Your task to perform on an android device: Go to accessibility settings Image 0: 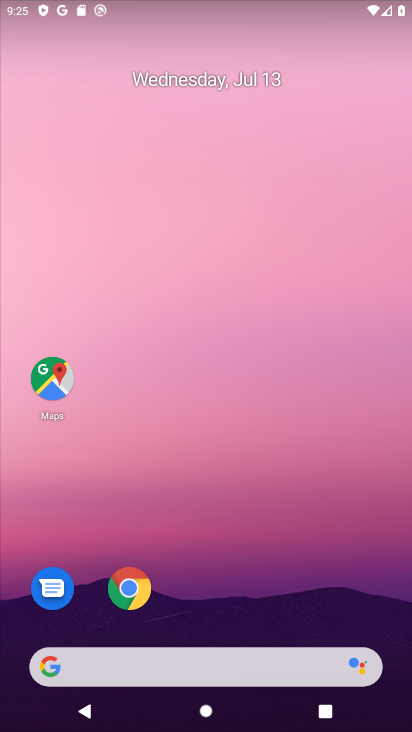
Step 0: drag from (236, 590) to (330, 71)
Your task to perform on an android device: Go to accessibility settings Image 1: 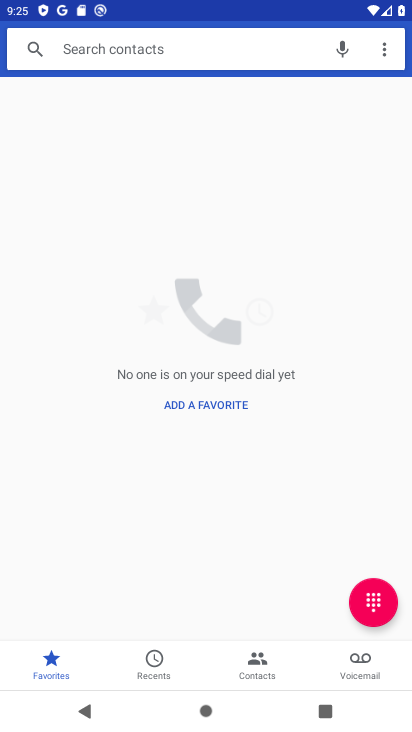
Step 1: press home button
Your task to perform on an android device: Go to accessibility settings Image 2: 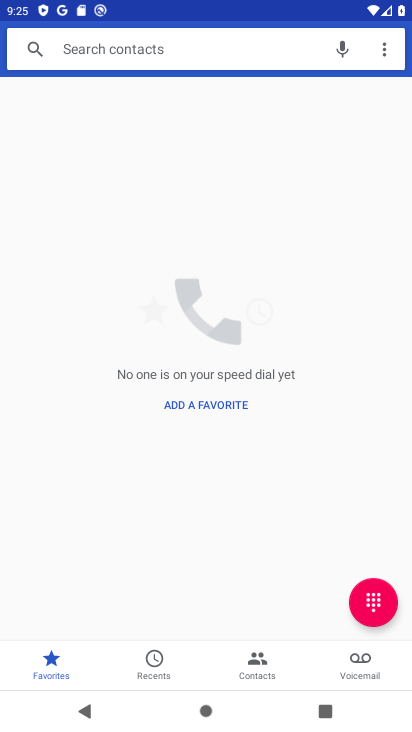
Step 2: drag from (330, 71) to (411, 526)
Your task to perform on an android device: Go to accessibility settings Image 3: 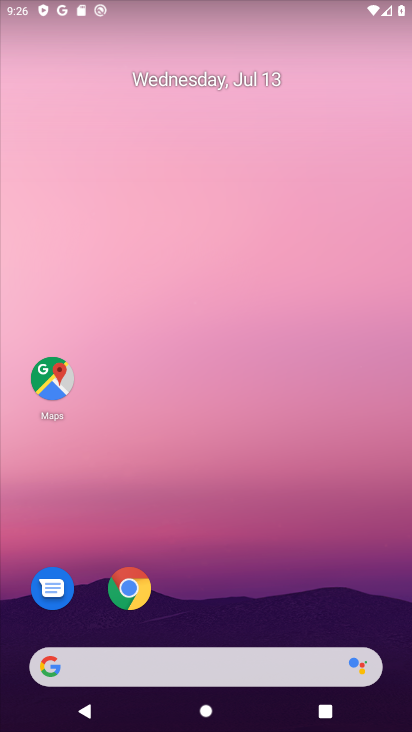
Step 3: drag from (253, 603) to (268, 15)
Your task to perform on an android device: Go to accessibility settings Image 4: 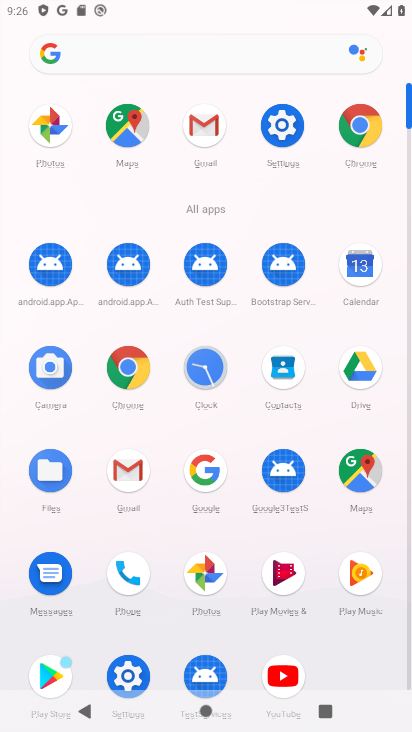
Step 4: click (131, 677)
Your task to perform on an android device: Go to accessibility settings Image 5: 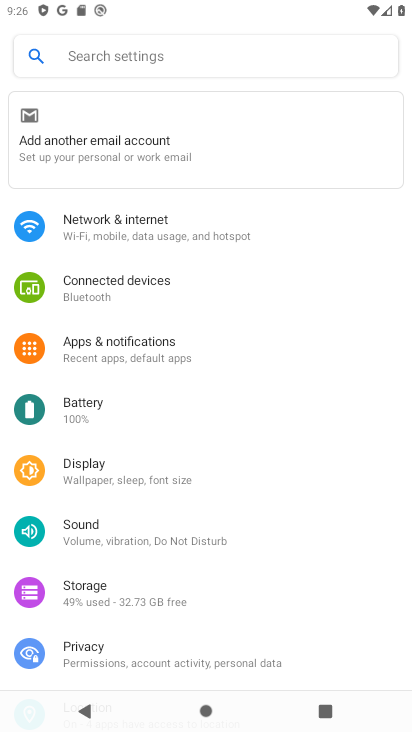
Step 5: drag from (182, 636) to (179, 154)
Your task to perform on an android device: Go to accessibility settings Image 6: 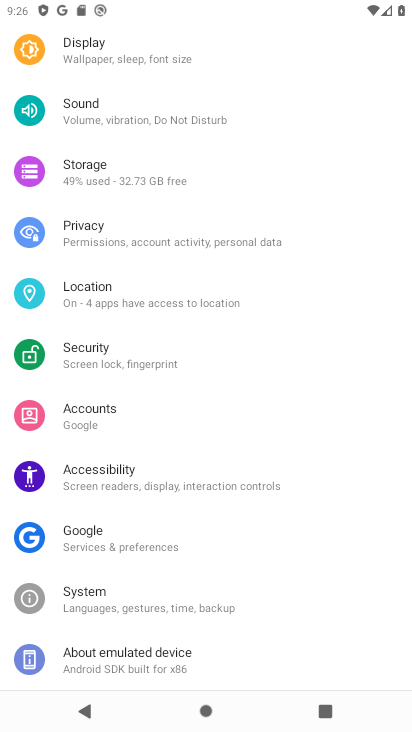
Step 6: click (105, 475)
Your task to perform on an android device: Go to accessibility settings Image 7: 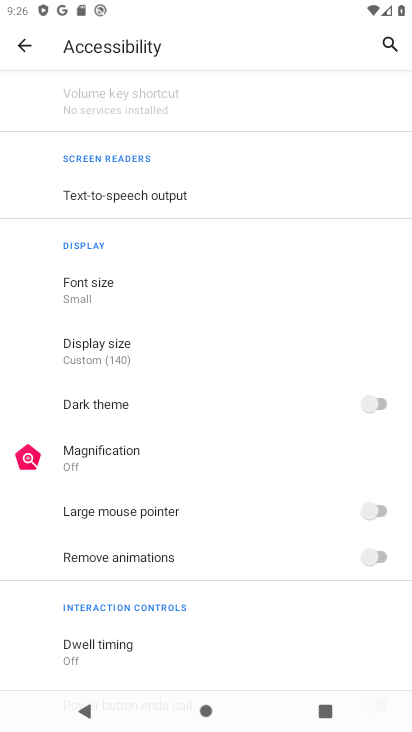
Step 7: task complete